Your task to perform on an android device: Show me productivity apps on the Play Store Image 0: 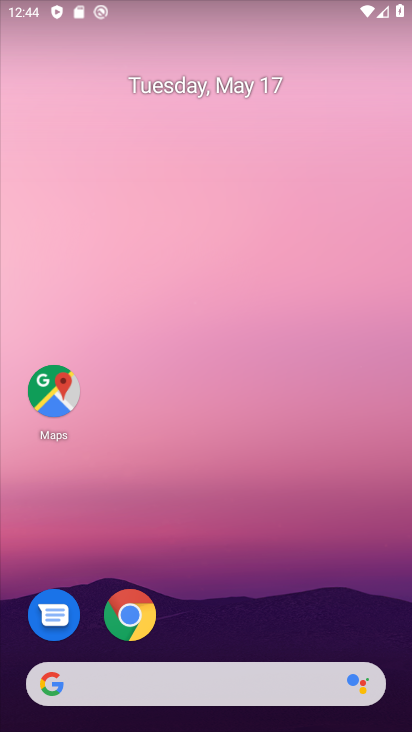
Step 0: drag from (260, 607) to (219, 102)
Your task to perform on an android device: Show me productivity apps on the Play Store Image 1: 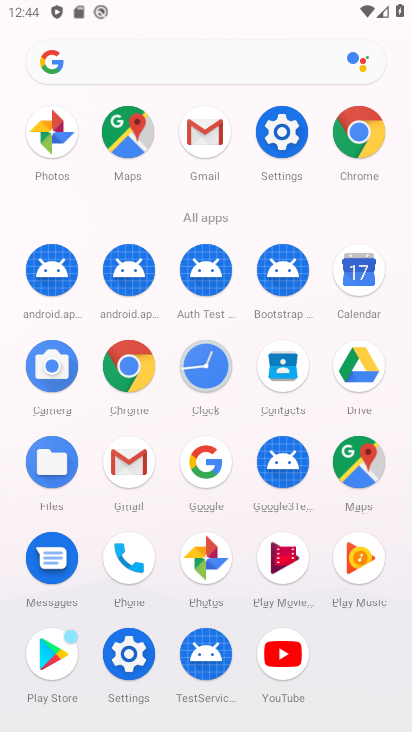
Step 1: click (50, 655)
Your task to perform on an android device: Show me productivity apps on the Play Store Image 2: 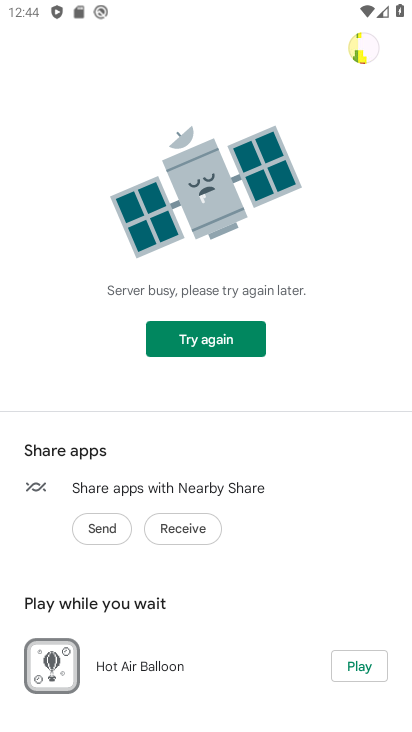
Step 2: click (219, 344)
Your task to perform on an android device: Show me productivity apps on the Play Store Image 3: 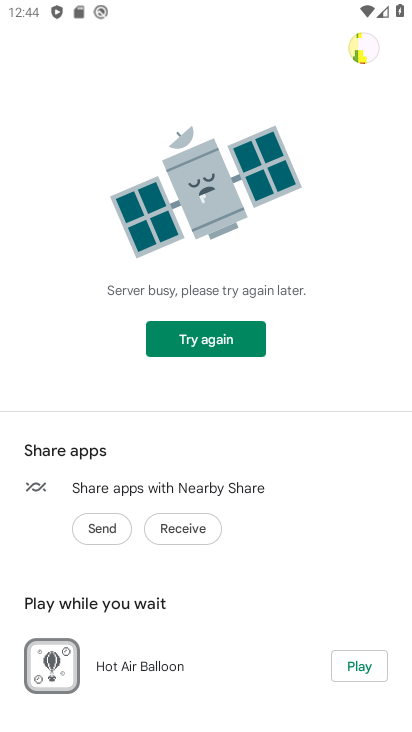
Step 3: click (219, 344)
Your task to perform on an android device: Show me productivity apps on the Play Store Image 4: 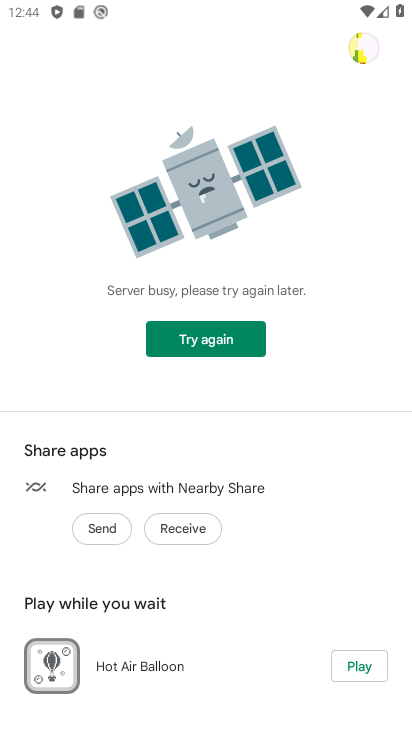
Step 4: click (219, 344)
Your task to perform on an android device: Show me productivity apps on the Play Store Image 5: 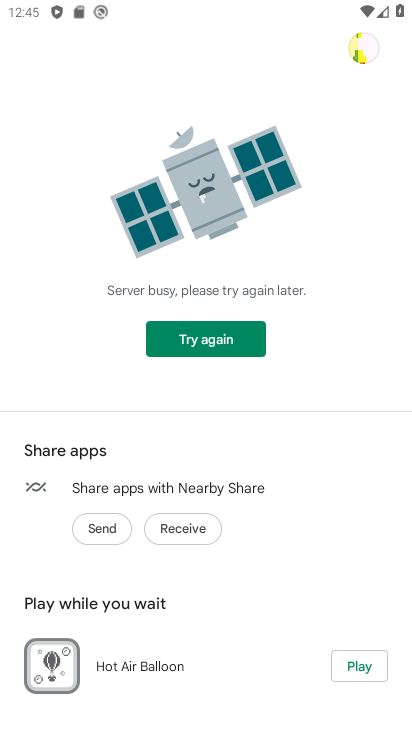
Step 5: task complete